Your task to perform on an android device: turn on javascript in the chrome app Image 0: 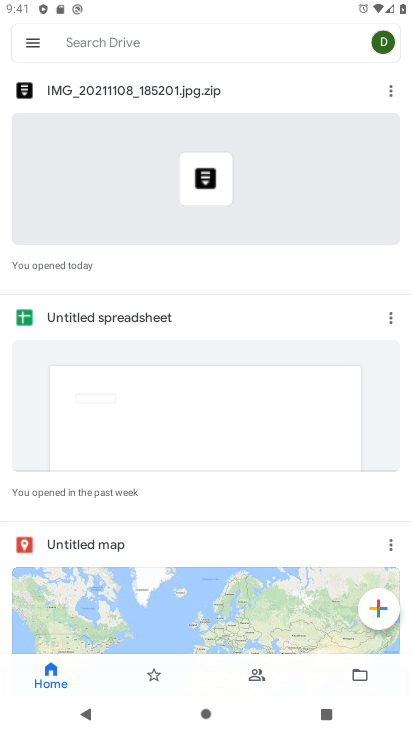
Step 0: press back button
Your task to perform on an android device: turn on javascript in the chrome app Image 1: 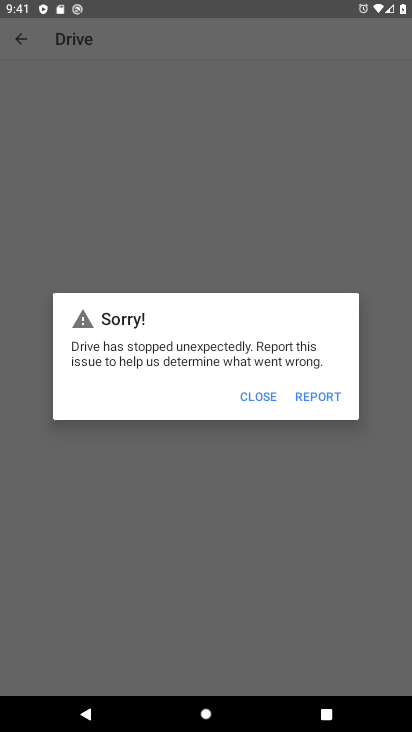
Step 1: press home button
Your task to perform on an android device: turn on javascript in the chrome app Image 2: 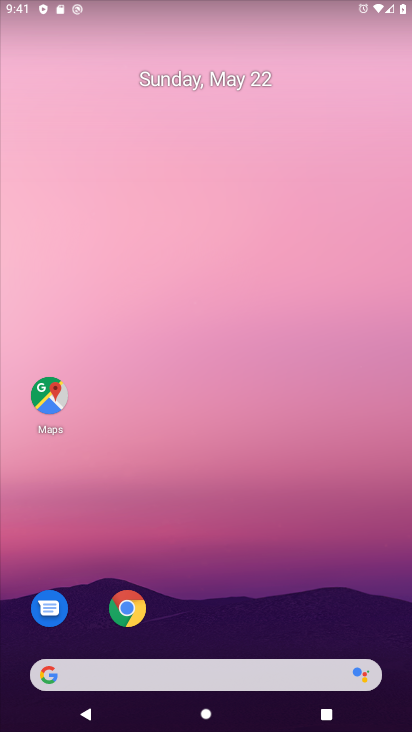
Step 2: drag from (276, 578) to (229, 7)
Your task to perform on an android device: turn on javascript in the chrome app Image 3: 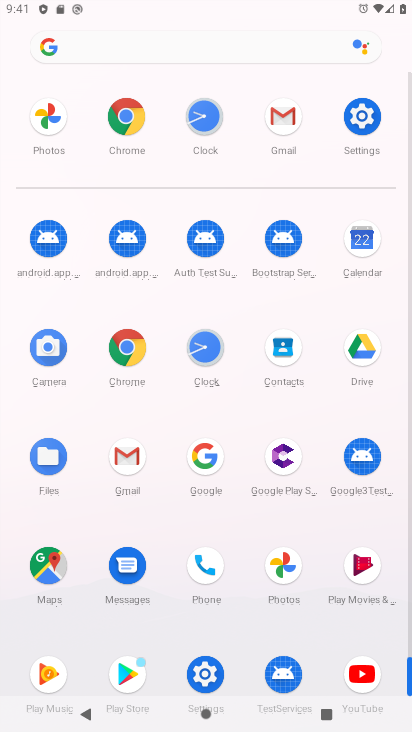
Step 3: click (126, 339)
Your task to perform on an android device: turn on javascript in the chrome app Image 4: 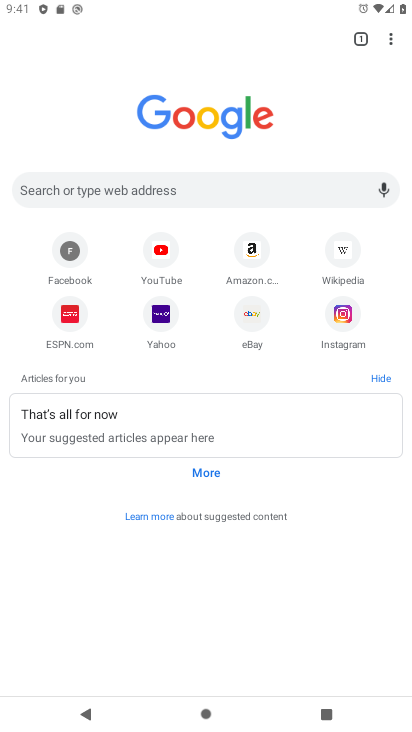
Step 4: drag from (386, 40) to (242, 322)
Your task to perform on an android device: turn on javascript in the chrome app Image 5: 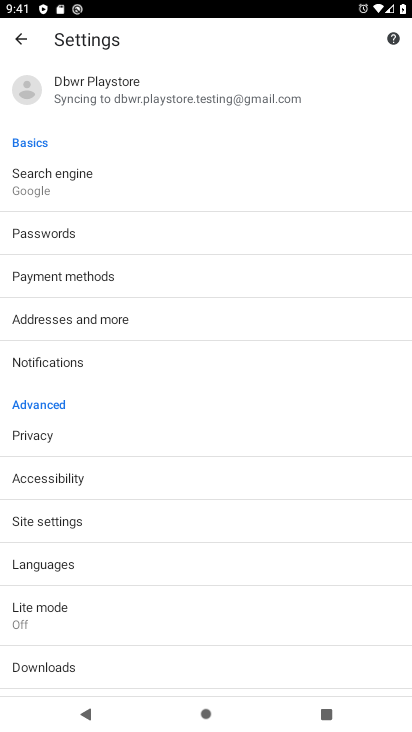
Step 5: click (79, 563)
Your task to perform on an android device: turn on javascript in the chrome app Image 6: 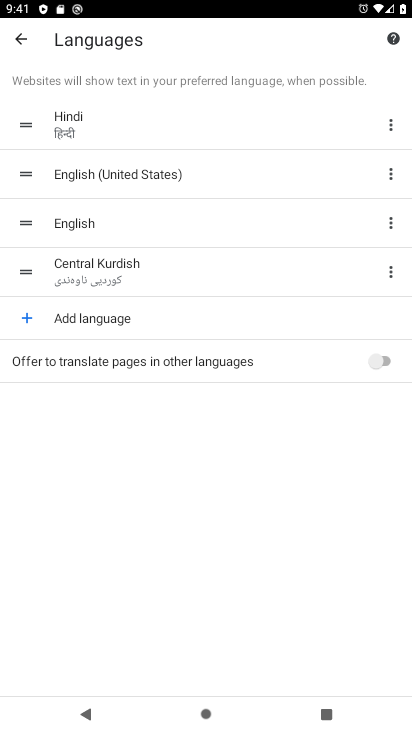
Step 6: click (17, 34)
Your task to perform on an android device: turn on javascript in the chrome app Image 7: 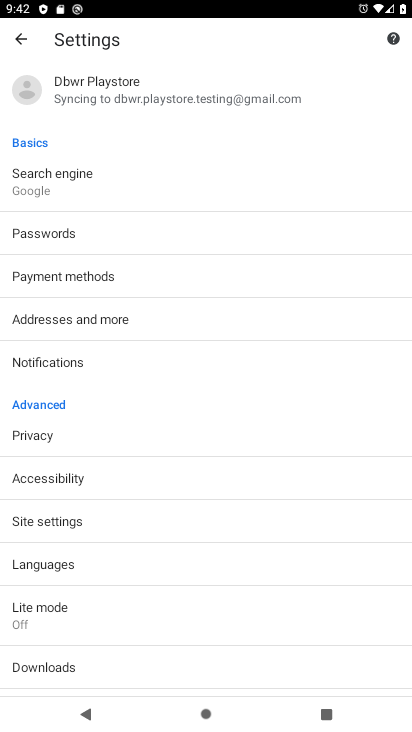
Step 7: click (101, 518)
Your task to perform on an android device: turn on javascript in the chrome app Image 8: 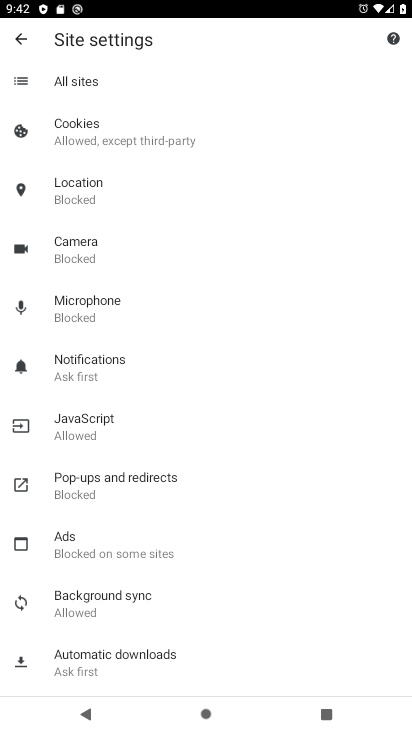
Step 8: click (103, 429)
Your task to perform on an android device: turn on javascript in the chrome app Image 9: 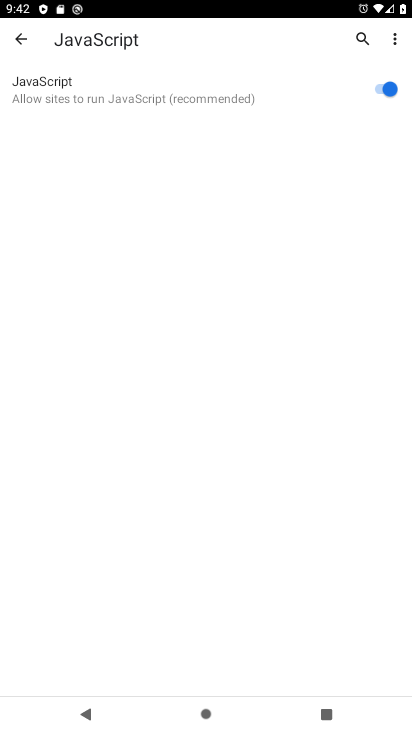
Step 9: task complete